Your task to perform on an android device: Go to accessibility settings Image 0: 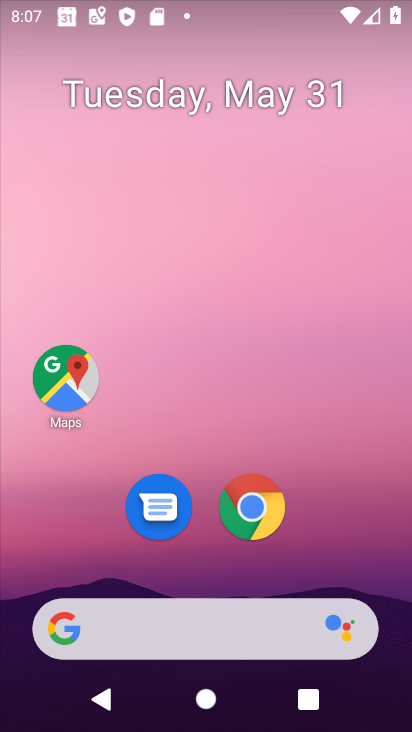
Step 0: drag from (324, 502) to (301, 76)
Your task to perform on an android device: Go to accessibility settings Image 1: 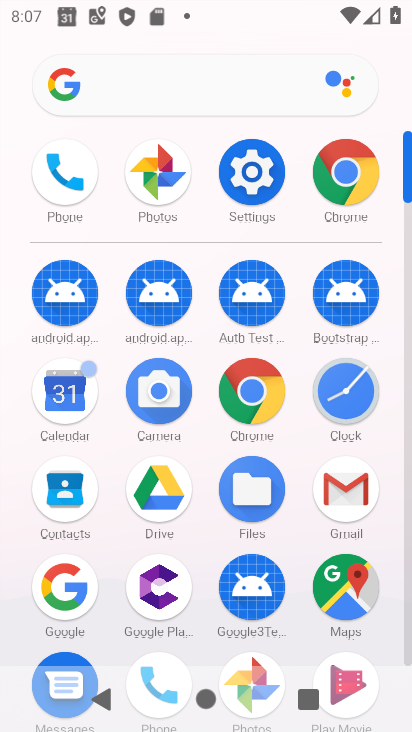
Step 1: click (254, 162)
Your task to perform on an android device: Go to accessibility settings Image 2: 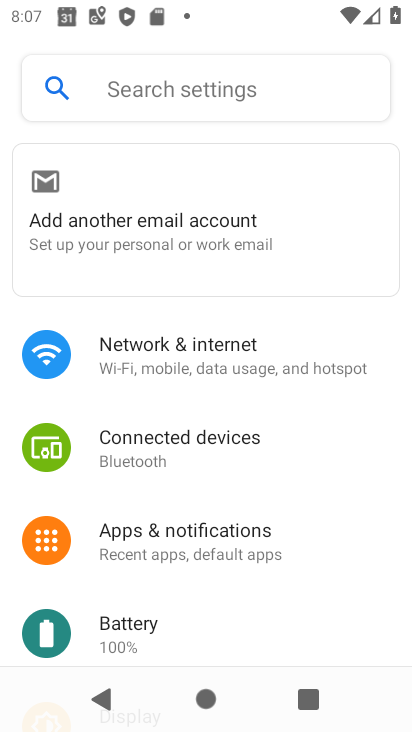
Step 2: drag from (269, 529) to (308, 103)
Your task to perform on an android device: Go to accessibility settings Image 3: 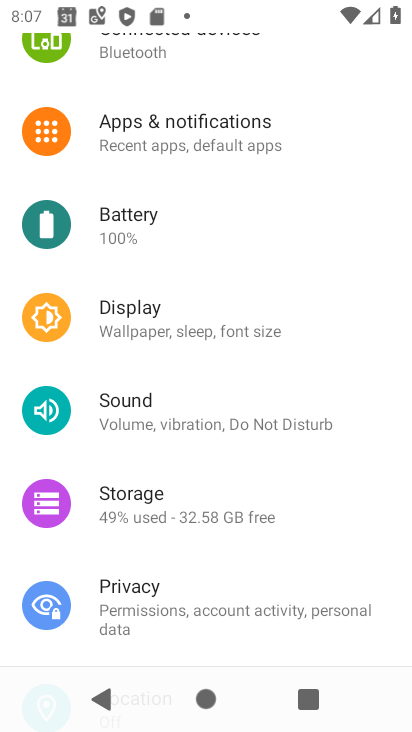
Step 3: drag from (262, 471) to (293, 156)
Your task to perform on an android device: Go to accessibility settings Image 4: 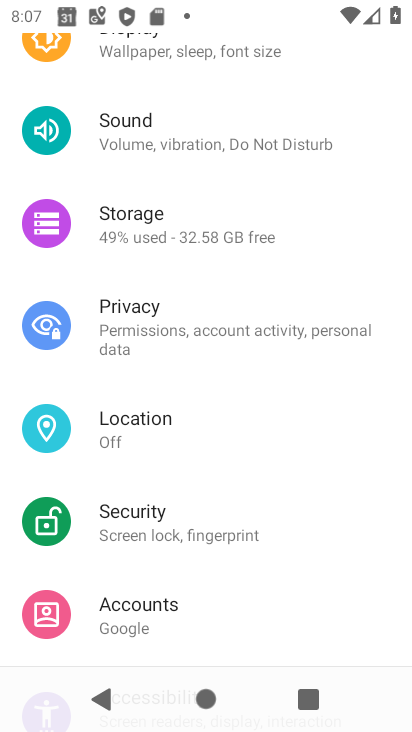
Step 4: drag from (252, 553) to (321, 177)
Your task to perform on an android device: Go to accessibility settings Image 5: 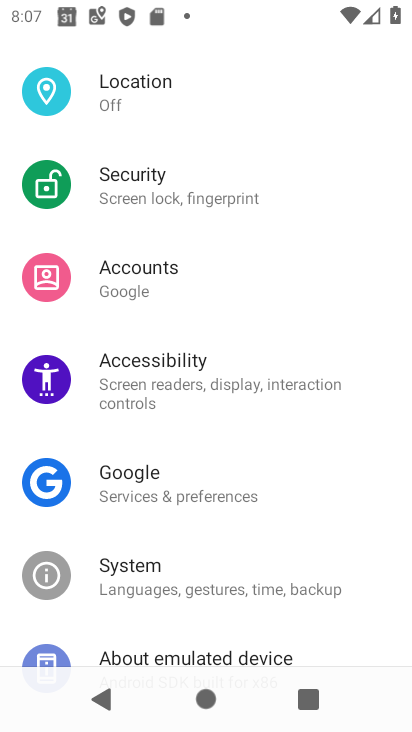
Step 5: click (236, 375)
Your task to perform on an android device: Go to accessibility settings Image 6: 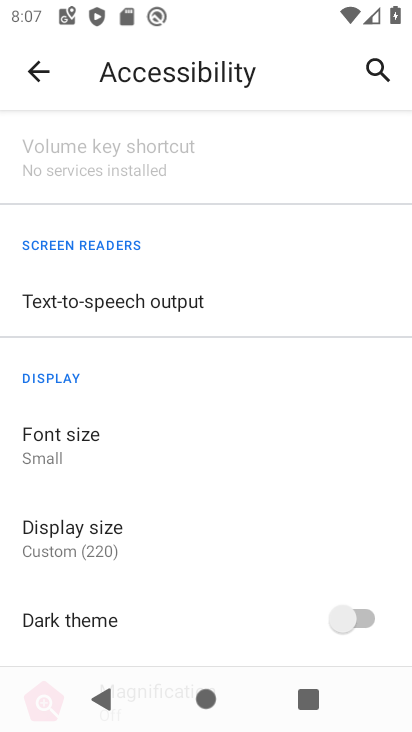
Step 6: task complete